Your task to perform on an android device: Open calendar and show me the second week of next month Image 0: 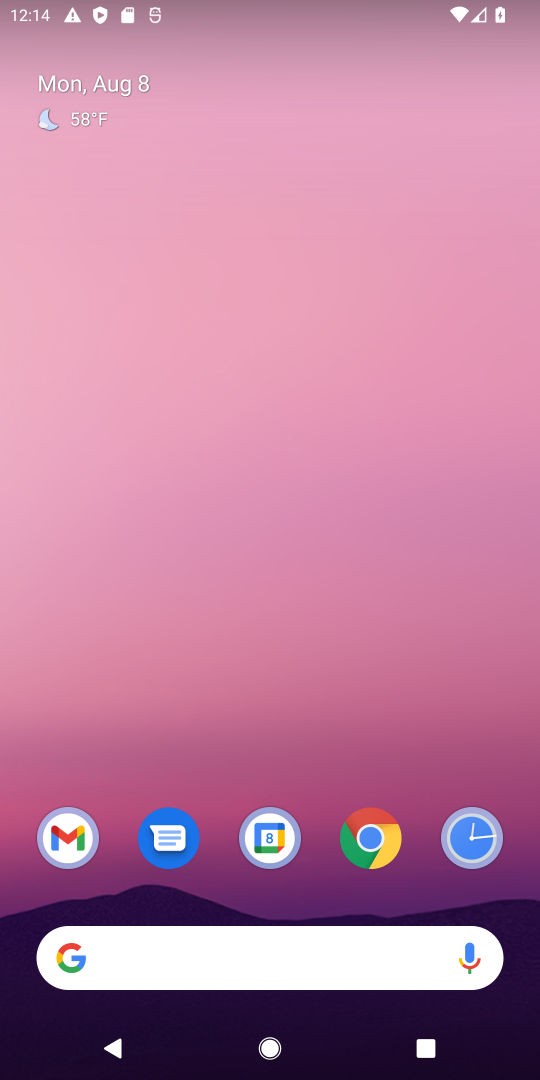
Step 0: press home button
Your task to perform on an android device: Open calendar and show me the second week of next month Image 1: 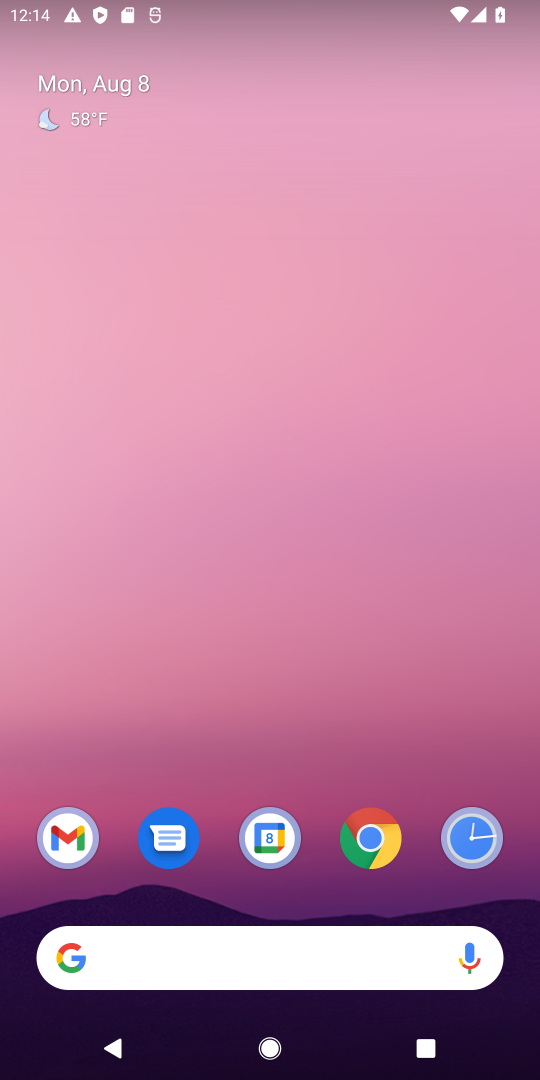
Step 1: drag from (321, 907) to (272, 210)
Your task to perform on an android device: Open calendar and show me the second week of next month Image 2: 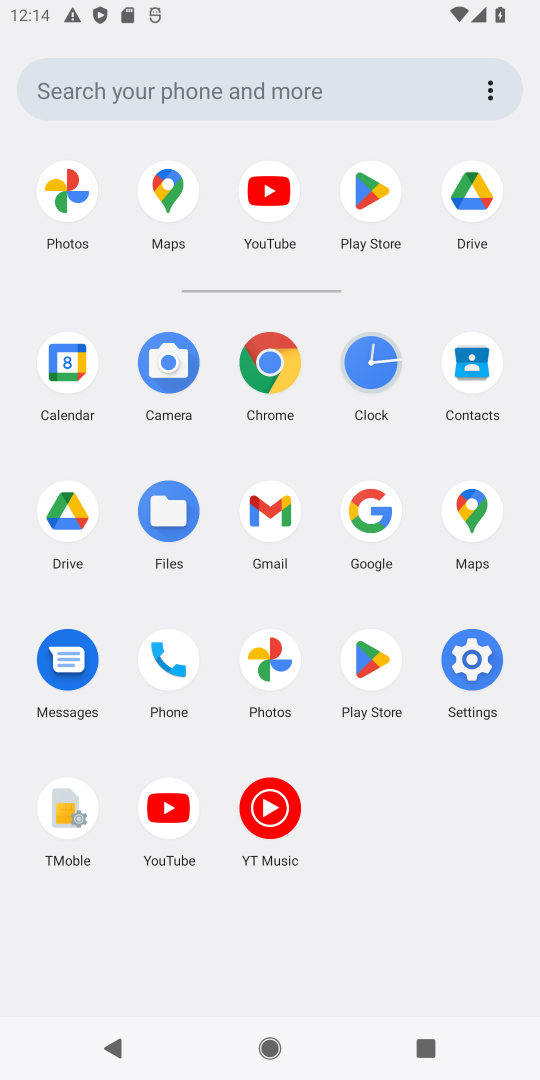
Step 2: click (50, 385)
Your task to perform on an android device: Open calendar and show me the second week of next month Image 3: 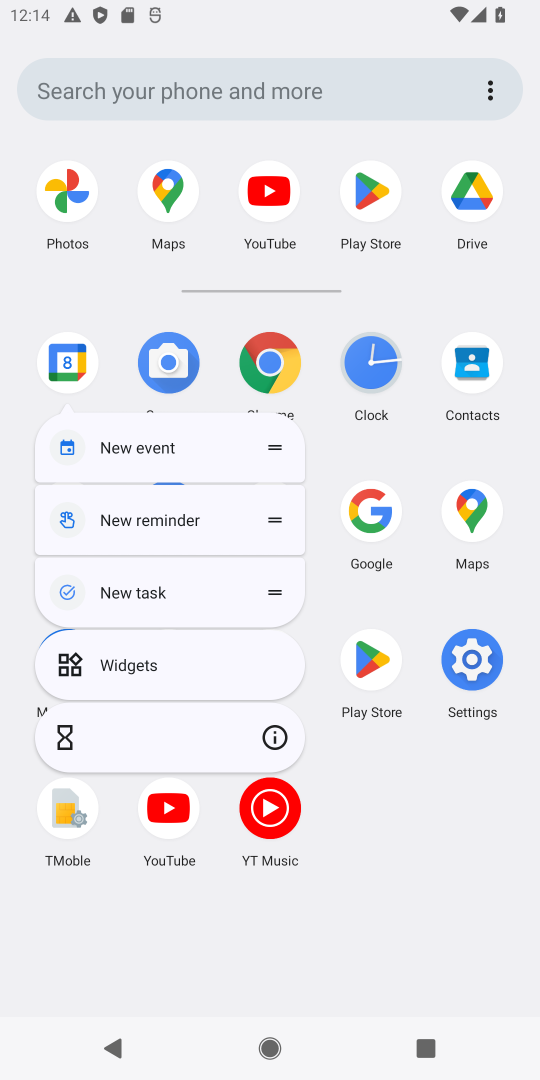
Step 3: click (80, 352)
Your task to perform on an android device: Open calendar and show me the second week of next month Image 4: 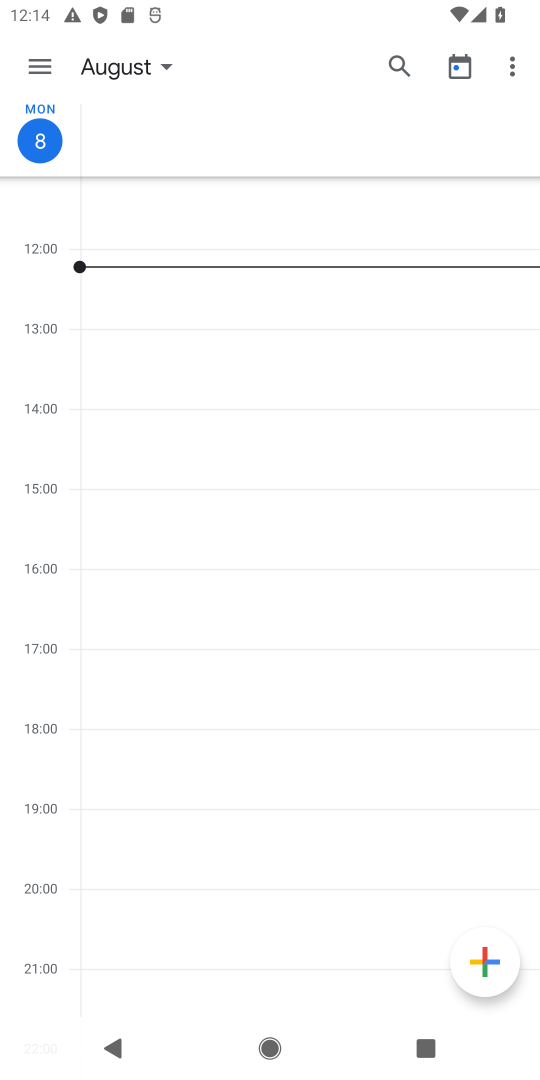
Step 4: click (151, 64)
Your task to perform on an android device: Open calendar and show me the second week of next month Image 5: 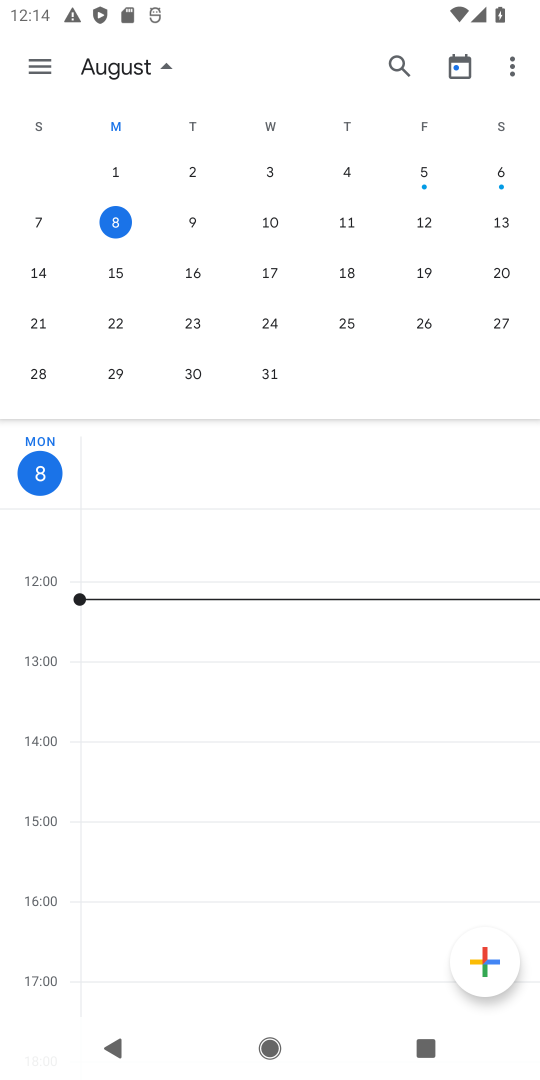
Step 5: drag from (407, 237) to (0, 276)
Your task to perform on an android device: Open calendar and show me the second week of next month Image 6: 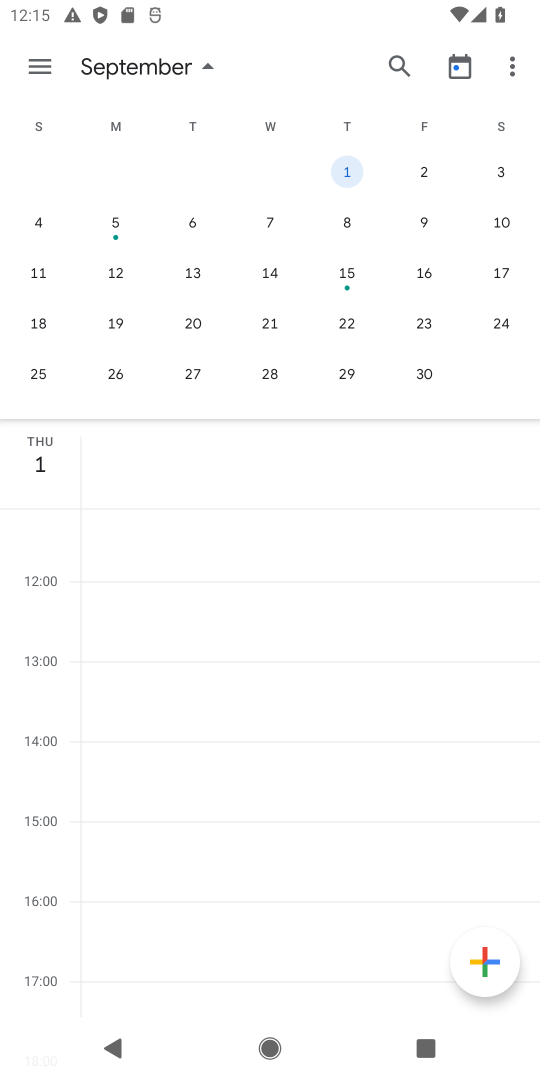
Step 6: click (112, 228)
Your task to perform on an android device: Open calendar and show me the second week of next month Image 7: 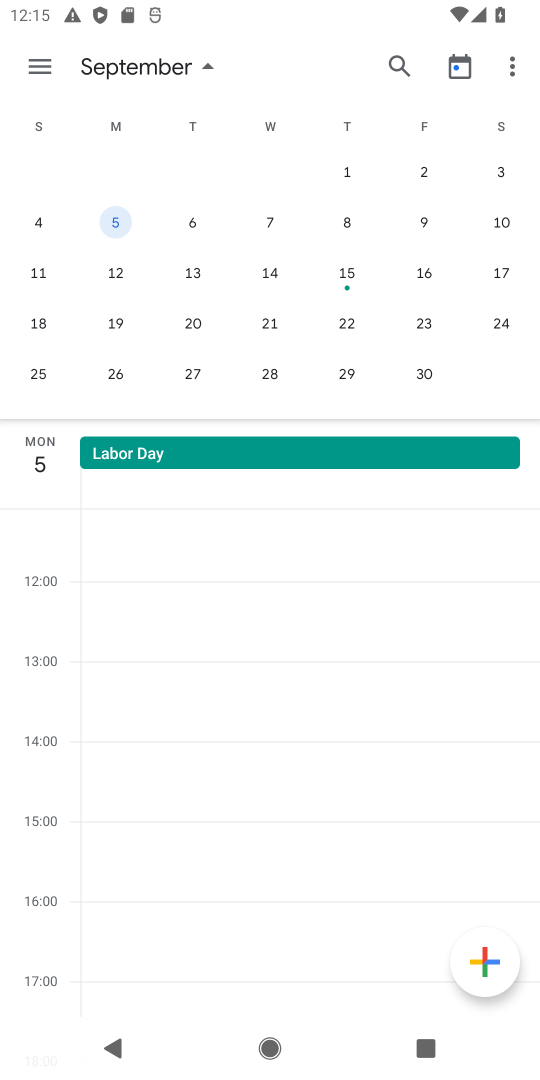
Step 7: click (194, 225)
Your task to perform on an android device: Open calendar and show me the second week of next month Image 8: 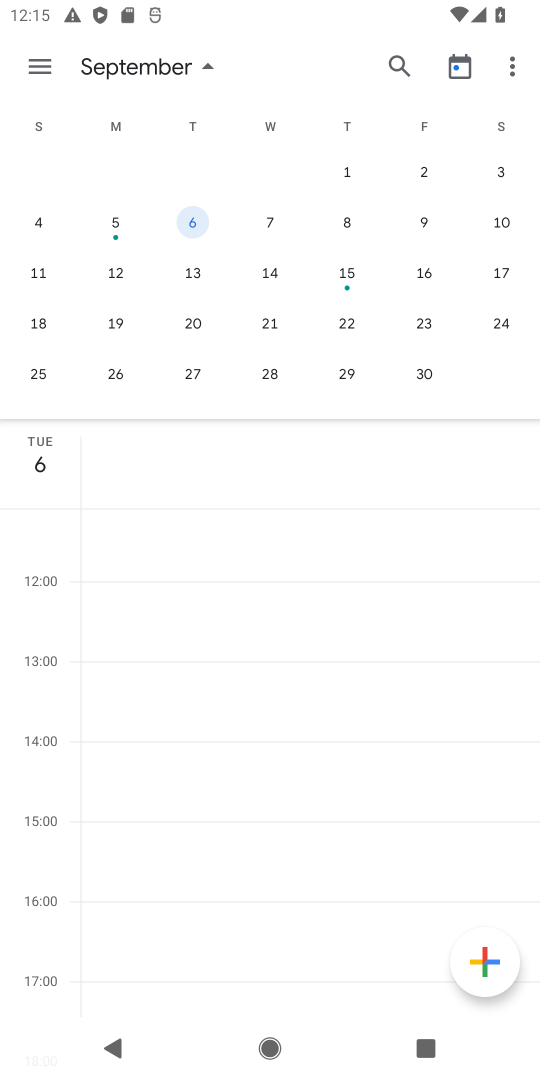
Step 8: click (270, 222)
Your task to perform on an android device: Open calendar and show me the second week of next month Image 9: 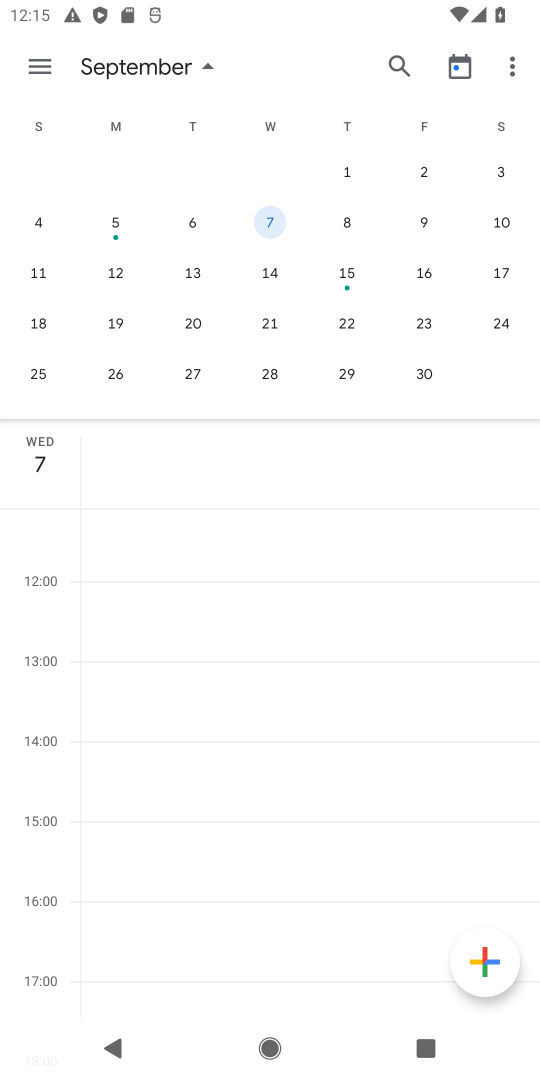
Step 9: click (347, 223)
Your task to perform on an android device: Open calendar and show me the second week of next month Image 10: 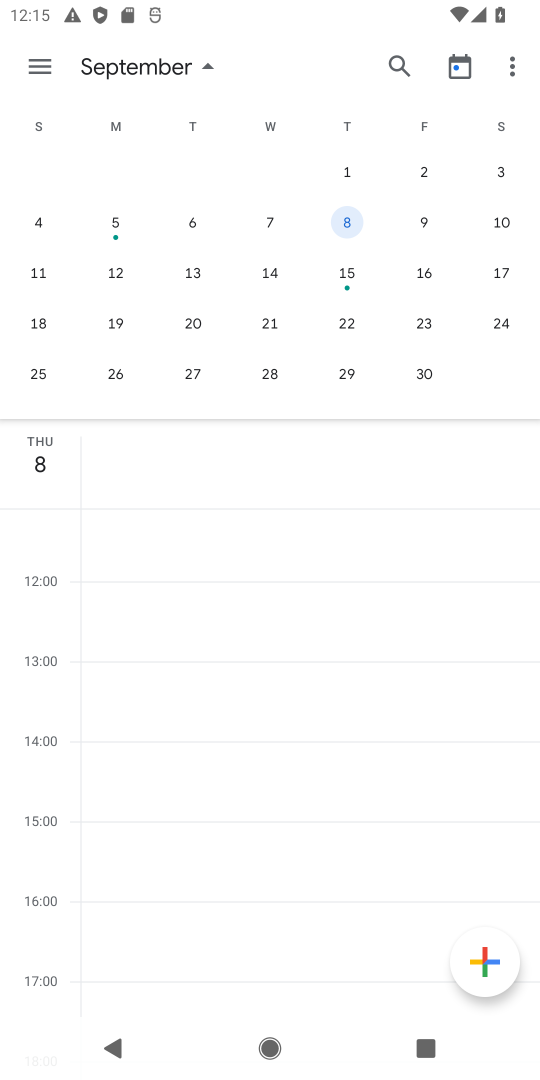
Step 10: click (425, 221)
Your task to perform on an android device: Open calendar and show me the second week of next month Image 11: 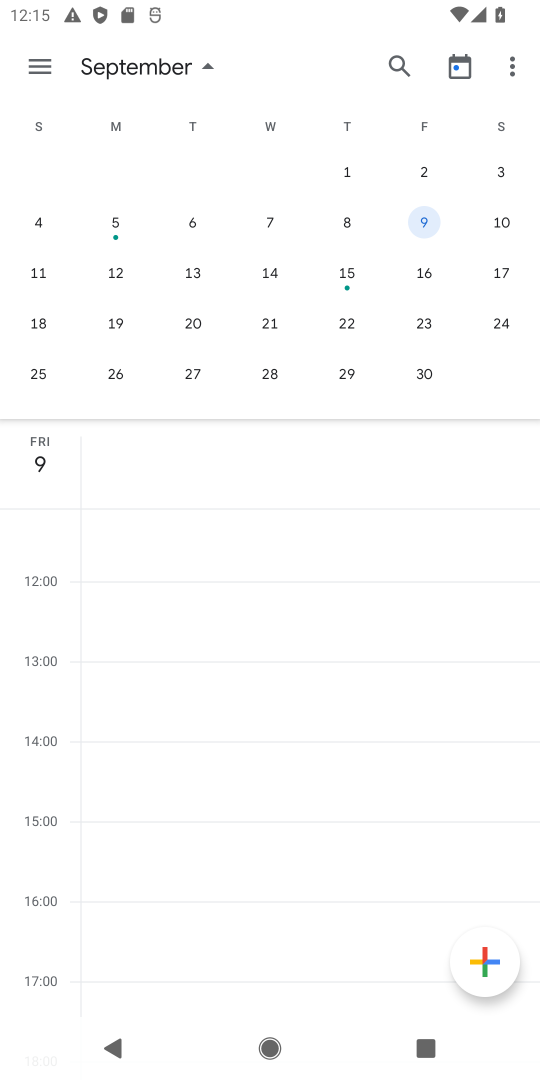
Step 11: click (503, 220)
Your task to perform on an android device: Open calendar and show me the second week of next month Image 12: 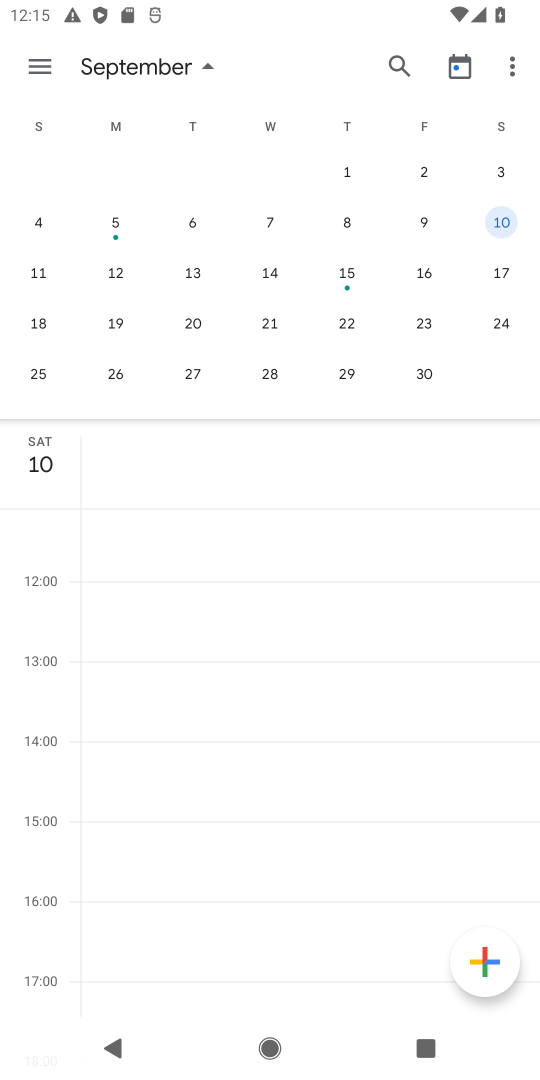
Step 12: click (44, 271)
Your task to perform on an android device: Open calendar and show me the second week of next month Image 13: 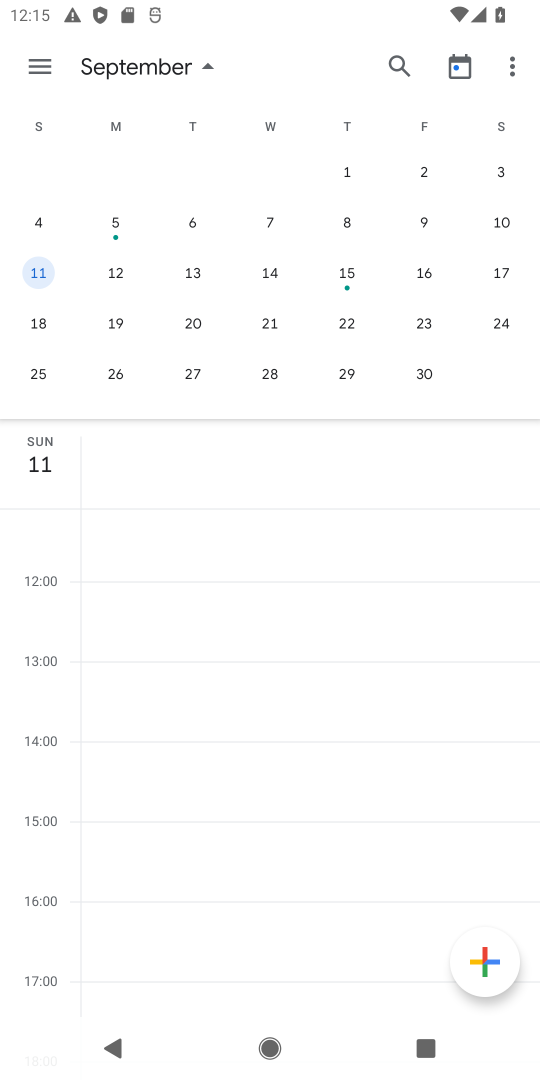
Step 13: task complete